Your task to perform on an android device: open wifi settings Image 0: 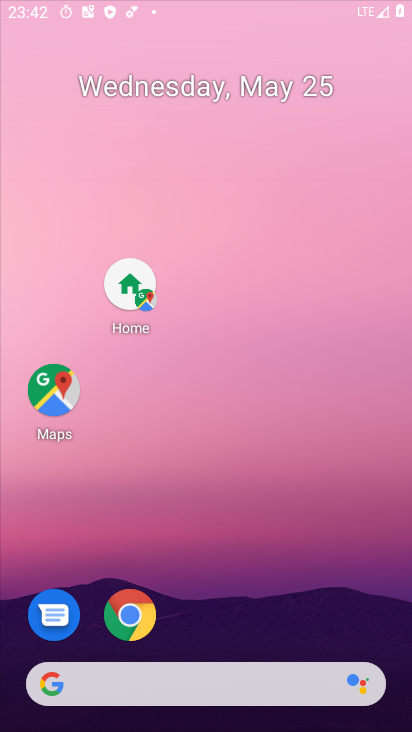
Step 0: press home button
Your task to perform on an android device: open wifi settings Image 1: 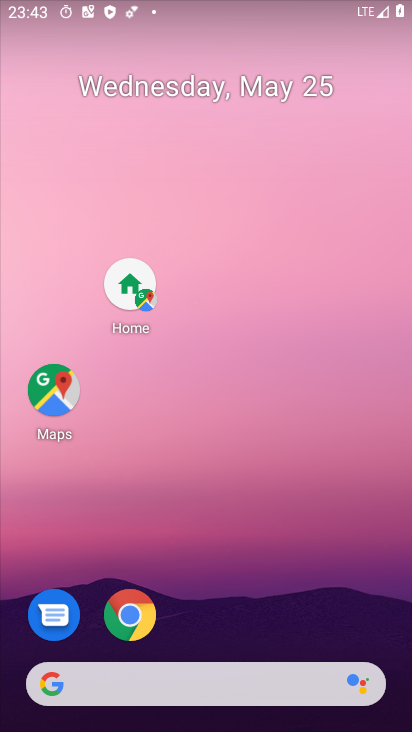
Step 1: drag from (311, 561) to (243, 52)
Your task to perform on an android device: open wifi settings Image 2: 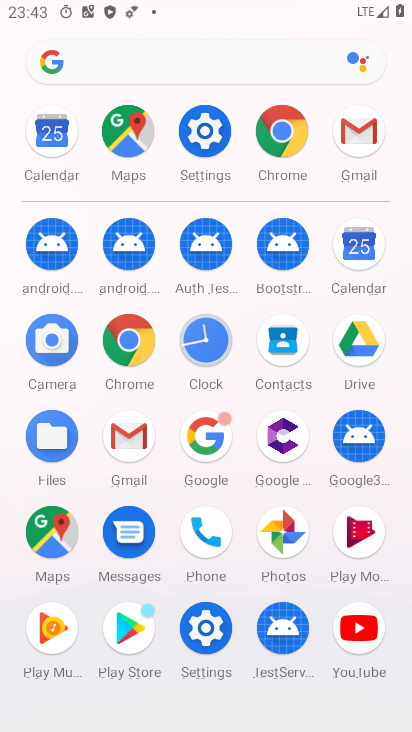
Step 2: click (192, 143)
Your task to perform on an android device: open wifi settings Image 3: 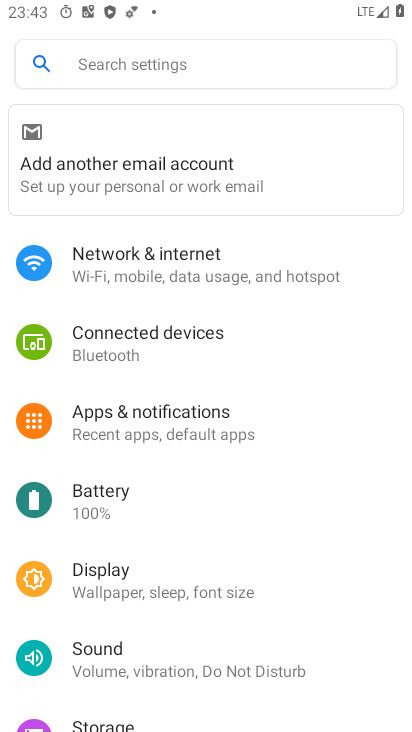
Step 3: click (156, 261)
Your task to perform on an android device: open wifi settings Image 4: 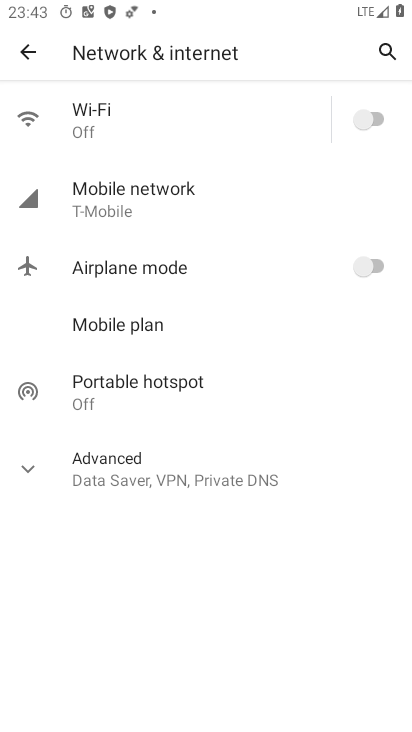
Step 4: click (100, 120)
Your task to perform on an android device: open wifi settings Image 5: 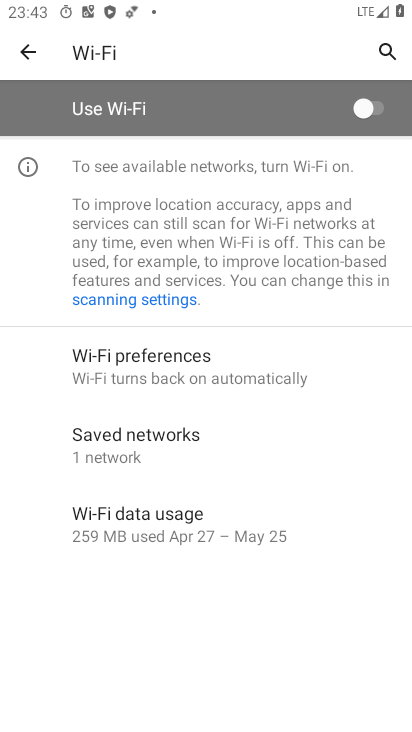
Step 5: click (25, 51)
Your task to perform on an android device: open wifi settings Image 6: 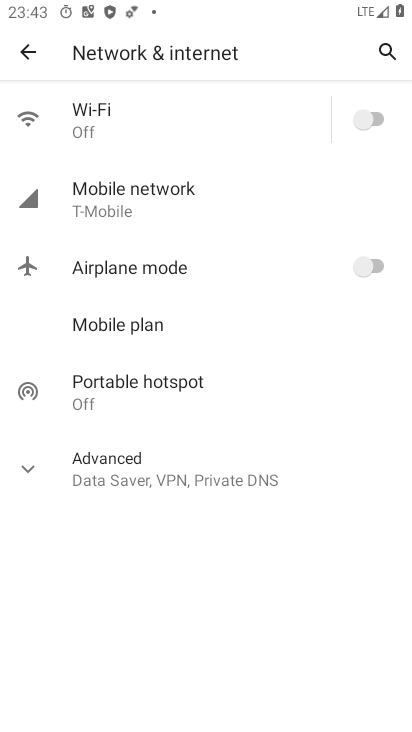
Step 6: drag from (372, 124) to (409, 127)
Your task to perform on an android device: open wifi settings Image 7: 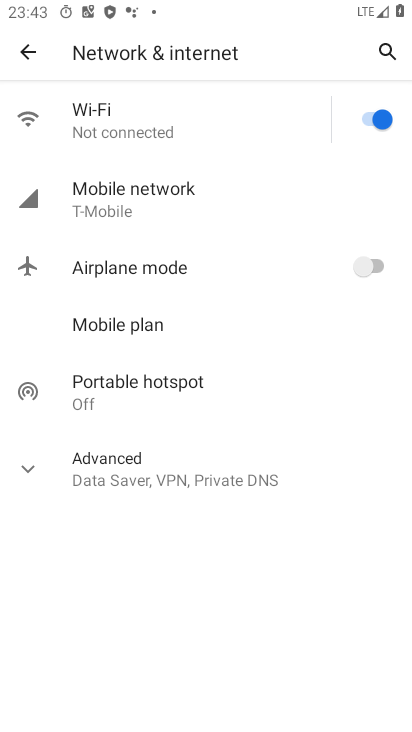
Step 7: drag from (368, 111) to (408, 119)
Your task to perform on an android device: open wifi settings Image 8: 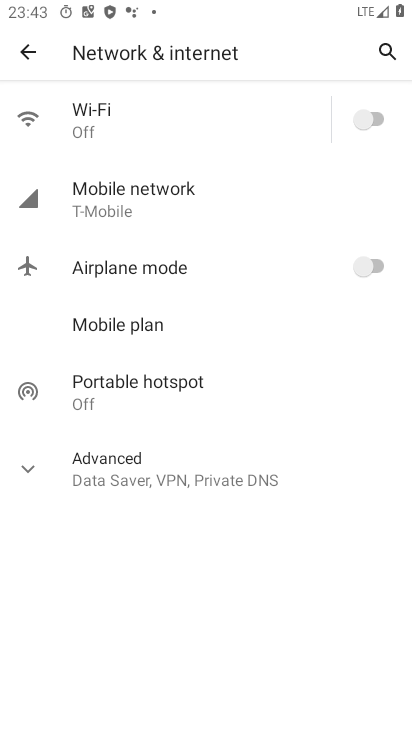
Step 8: drag from (363, 119) to (404, 124)
Your task to perform on an android device: open wifi settings Image 9: 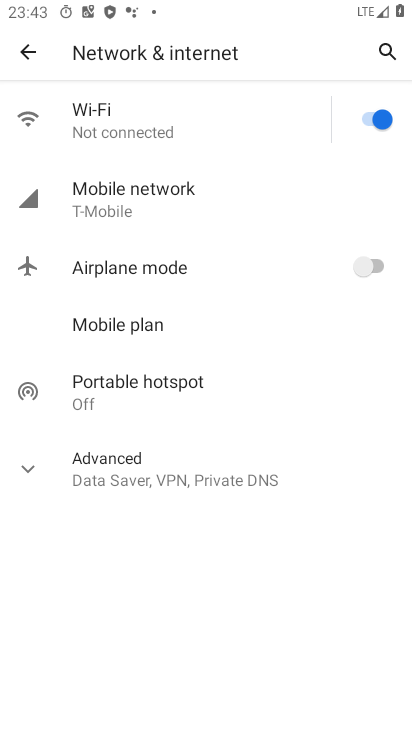
Step 9: click (379, 122)
Your task to perform on an android device: open wifi settings Image 10: 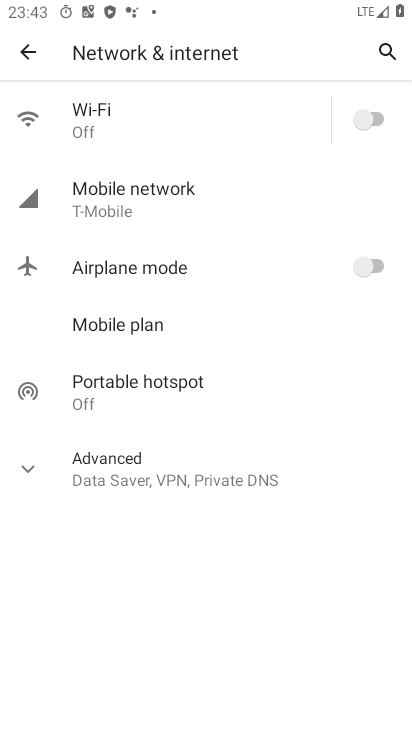
Step 10: click (377, 122)
Your task to perform on an android device: open wifi settings Image 11: 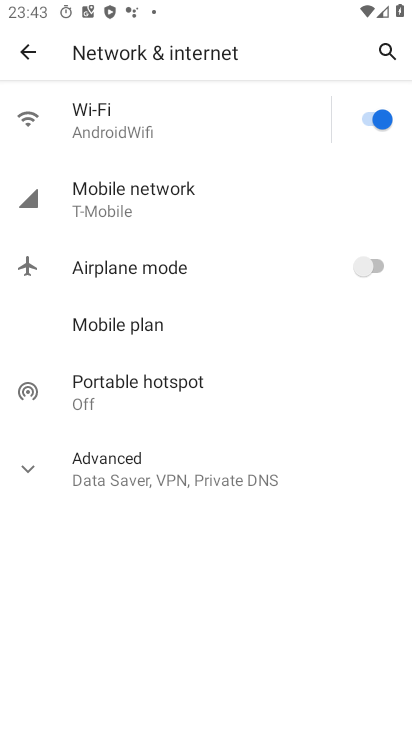
Step 11: click (104, 108)
Your task to perform on an android device: open wifi settings Image 12: 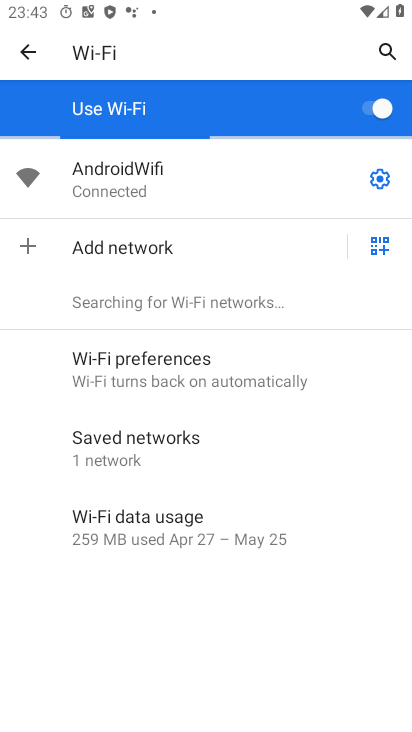
Step 12: task complete